Your task to perform on an android device: turn notification dots on Image 0: 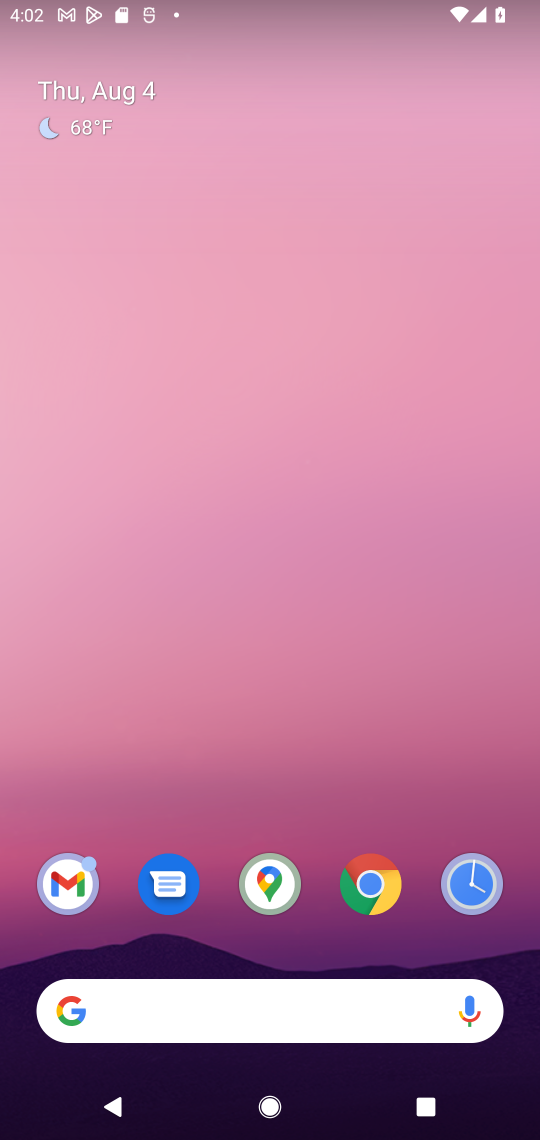
Step 0: drag from (327, 941) to (353, 161)
Your task to perform on an android device: turn notification dots on Image 1: 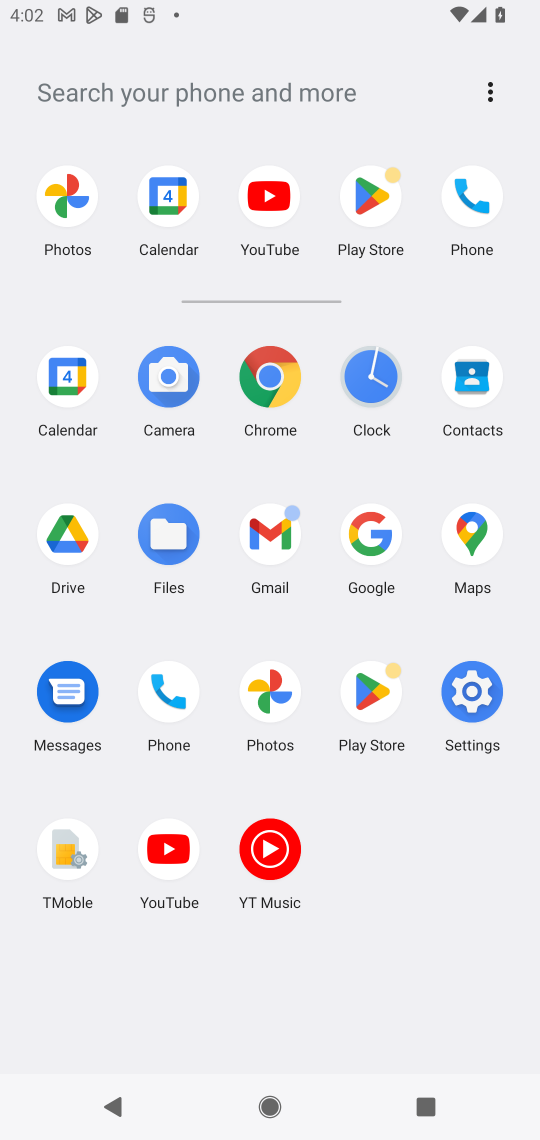
Step 1: click (495, 707)
Your task to perform on an android device: turn notification dots on Image 2: 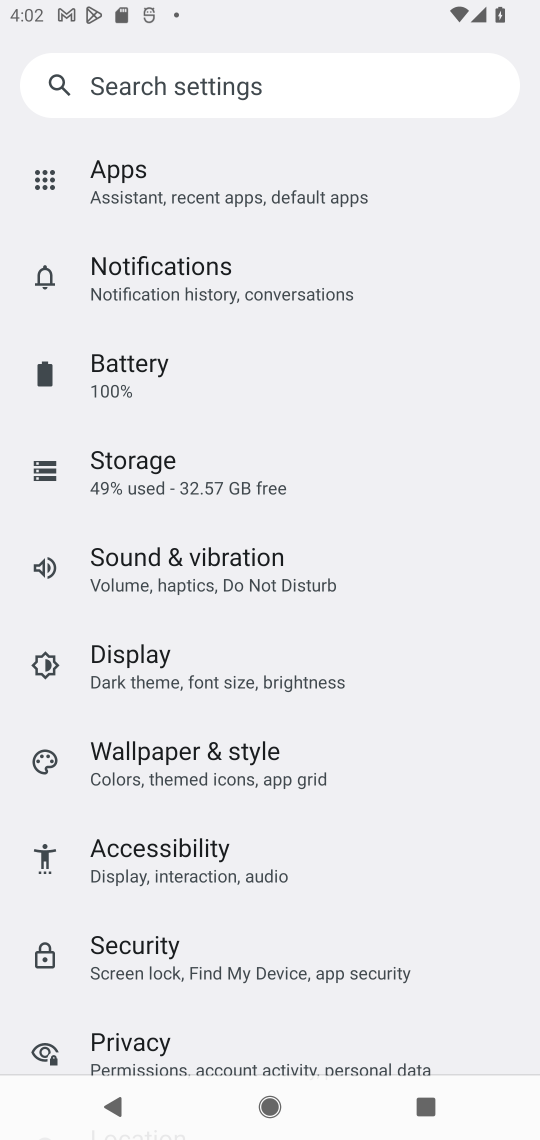
Step 2: click (233, 255)
Your task to perform on an android device: turn notification dots on Image 3: 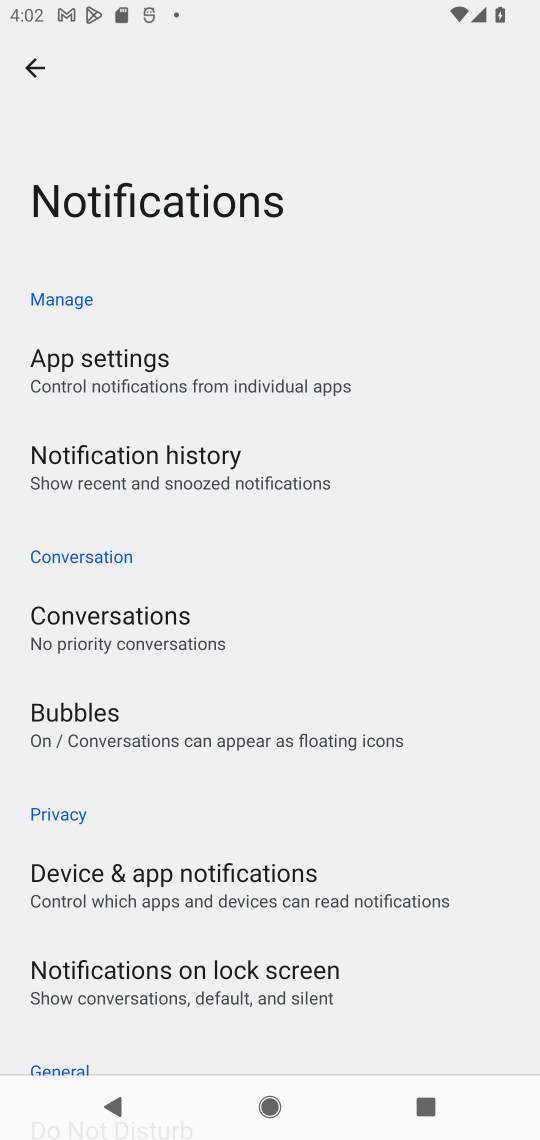
Step 3: task complete